Your task to perform on an android device: What is the recent news? Image 0: 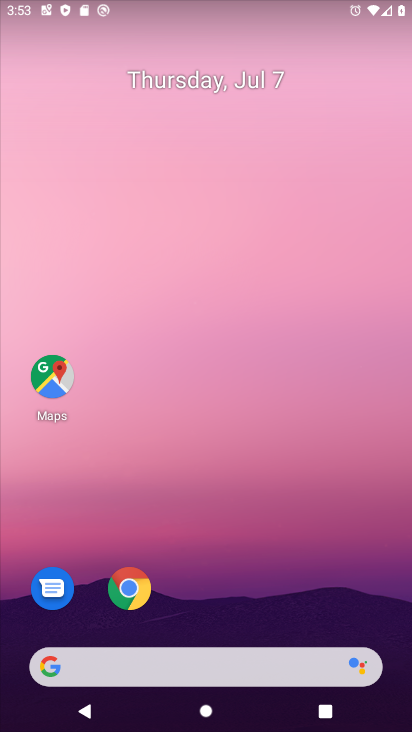
Step 0: click (229, 671)
Your task to perform on an android device: What is the recent news? Image 1: 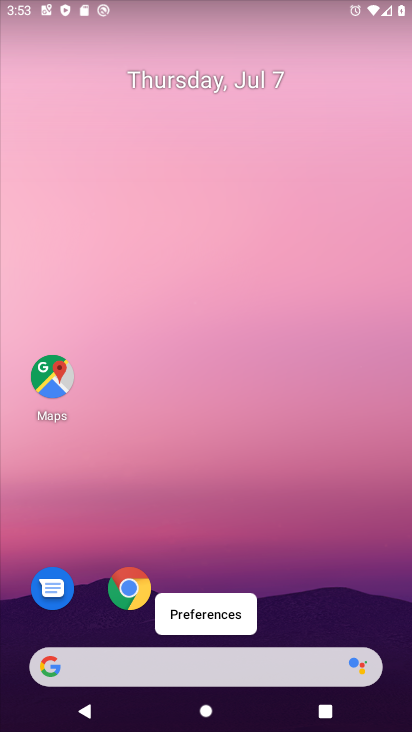
Step 1: drag from (179, 699) to (186, 368)
Your task to perform on an android device: What is the recent news? Image 2: 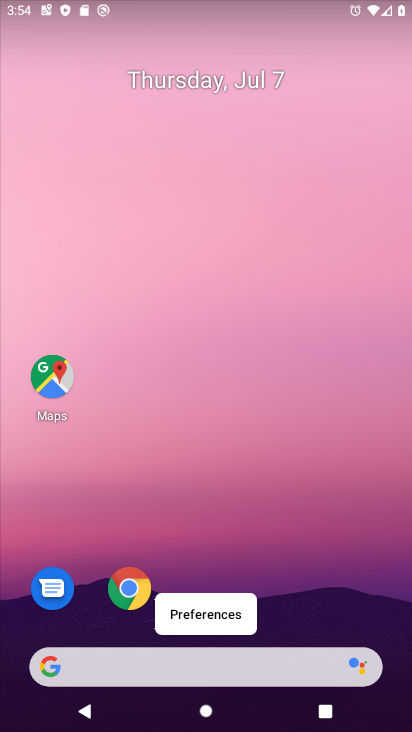
Step 2: click (203, 672)
Your task to perform on an android device: What is the recent news? Image 3: 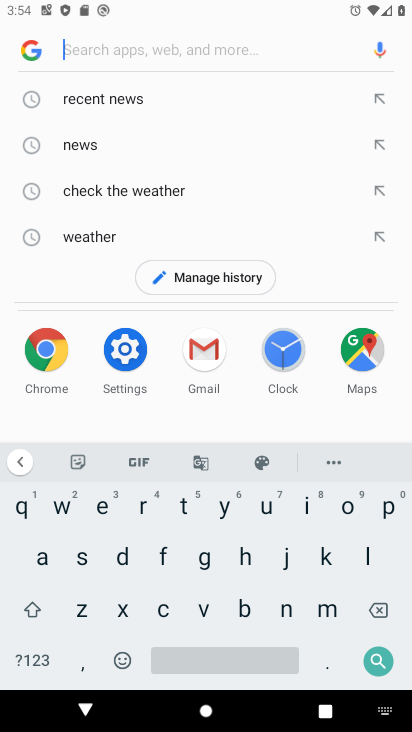
Step 3: click (134, 103)
Your task to perform on an android device: What is the recent news? Image 4: 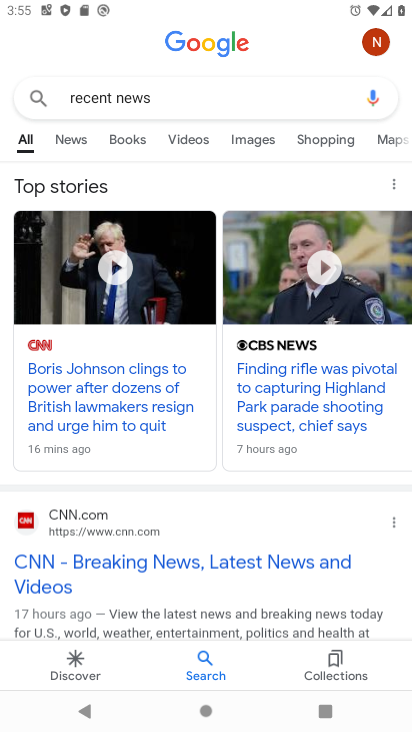
Step 4: task complete